Your task to perform on an android device: Go to Google Image 0: 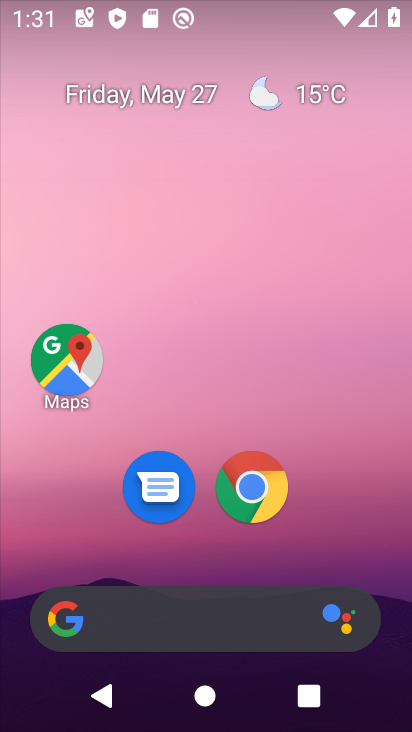
Step 0: click (190, 639)
Your task to perform on an android device: Go to Google Image 1: 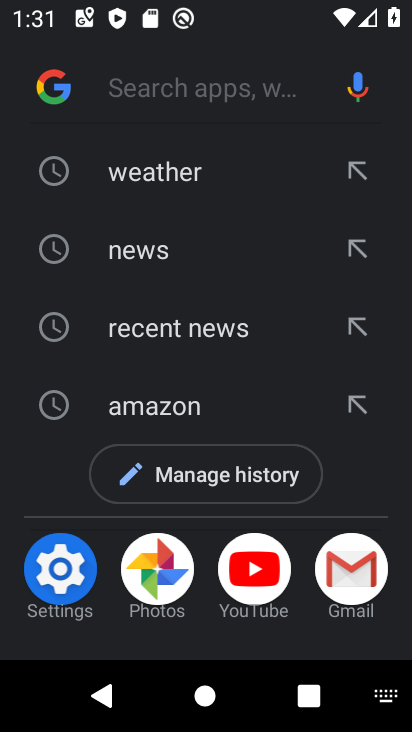
Step 1: task complete